Your task to perform on an android device: Open Google Image 0: 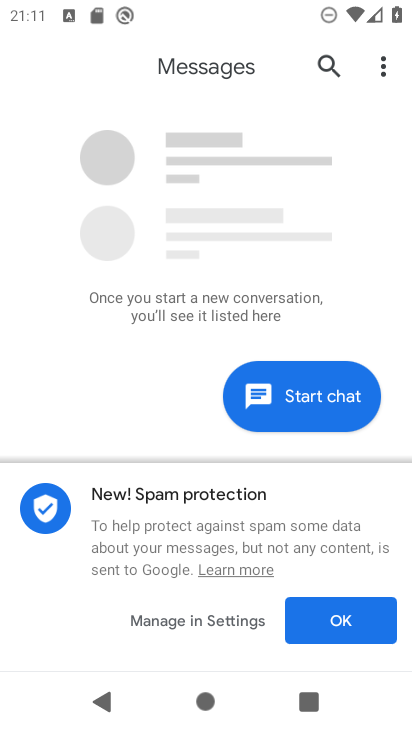
Step 0: press home button
Your task to perform on an android device: Open Google Image 1: 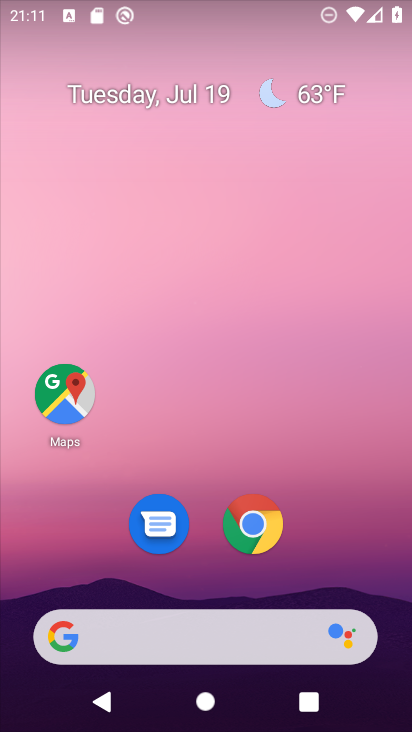
Step 1: click (192, 644)
Your task to perform on an android device: Open Google Image 2: 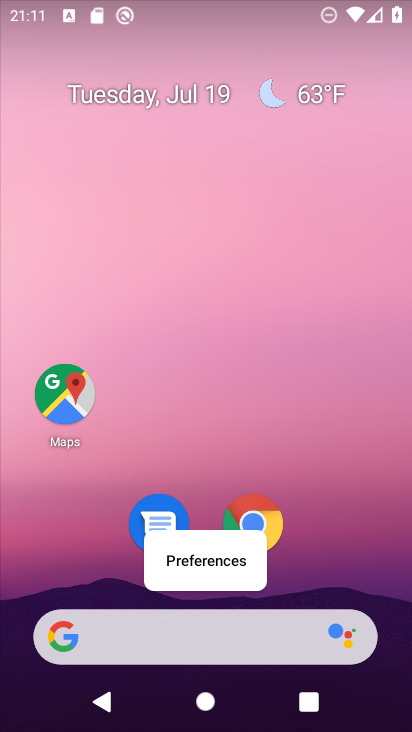
Step 2: click (136, 650)
Your task to perform on an android device: Open Google Image 3: 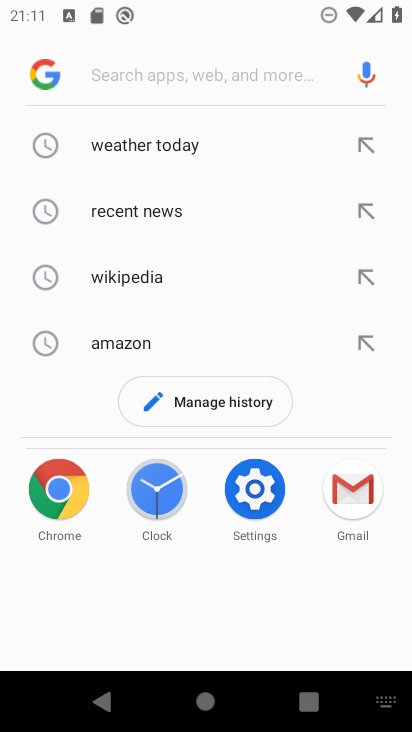
Step 3: click (47, 77)
Your task to perform on an android device: Open Google Image 4: 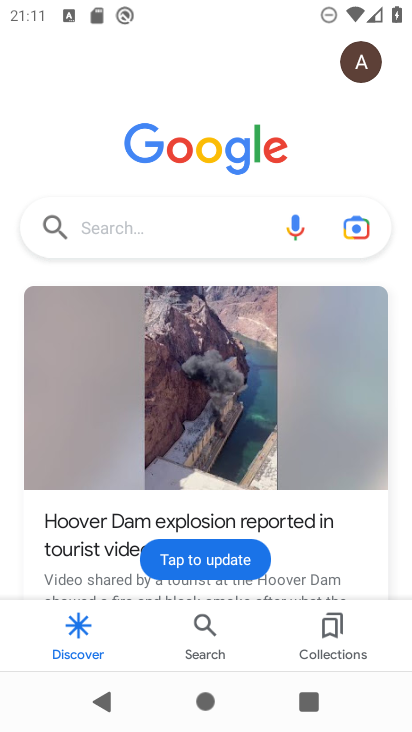
Step 4: task complete